Your task to perform on an android device: Open the map Image 0: 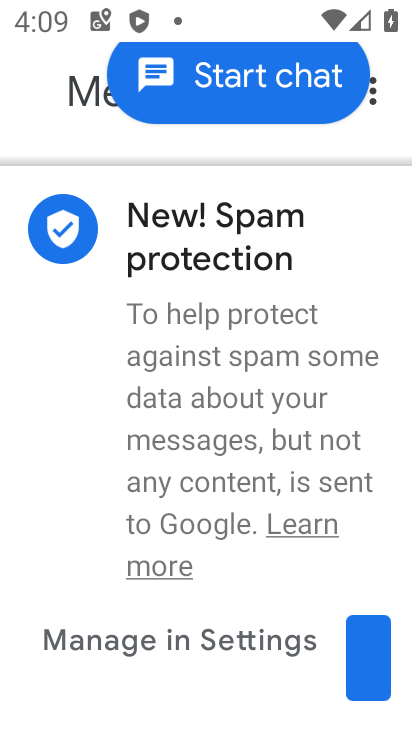
Step 0: press back button
Your task to perform on an android device: Open the map Image 1: 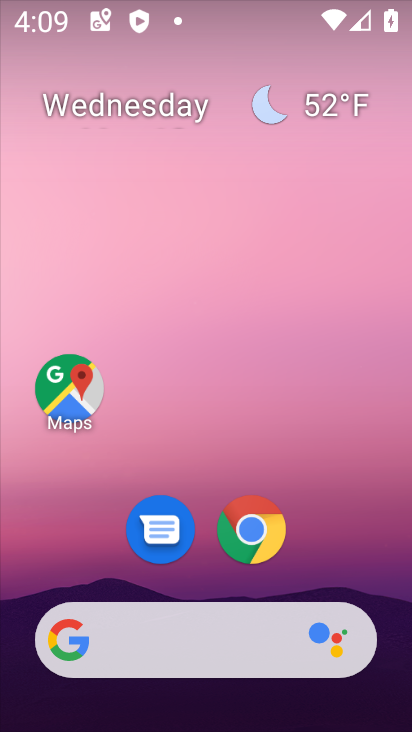
Step 1: click (68, 388)
Your task to perform on an android device: Open the map Image 2: 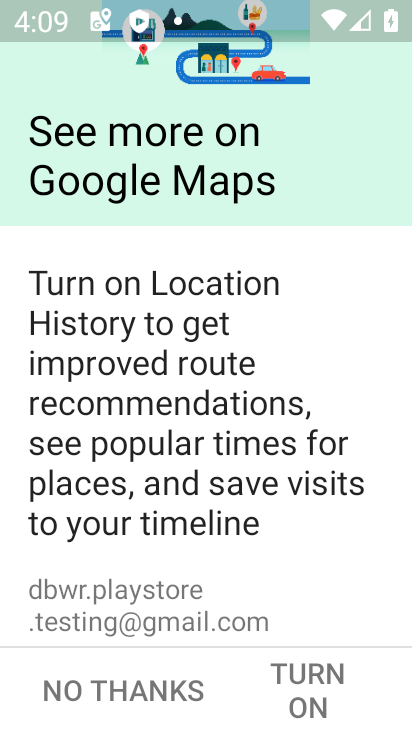
Step 2: click (97, 681)
Your task to perform on an android device: Open the map Image 3: 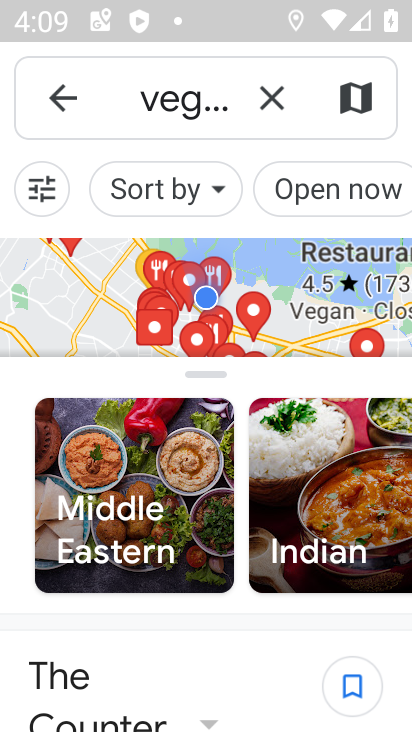
Step 3: click (269, 98)
Your task to perform on an android device: Open the map Image 4: 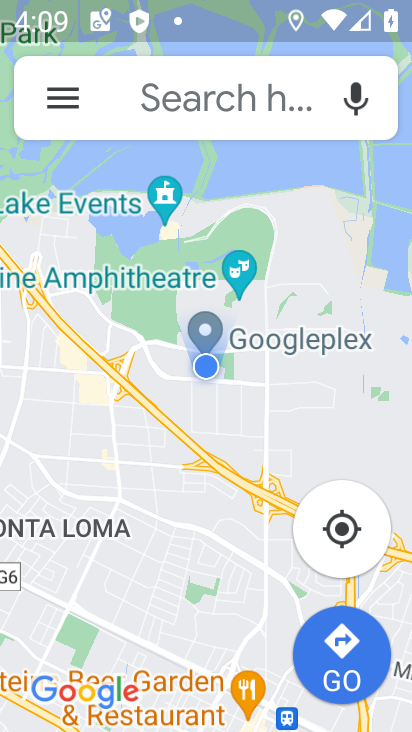
Step 4: task complete